Your task to perform on an android device: refresh tabs in the chrome app Image 0: 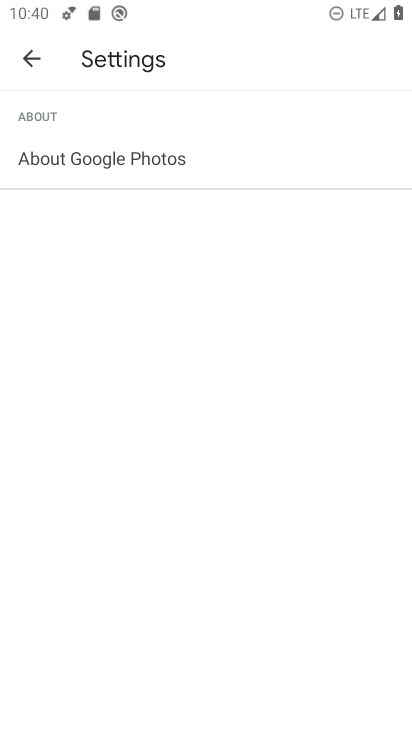
Step 0: press home button
Your task to perform on an android device: refresh tabs in the chrome app Image 1: 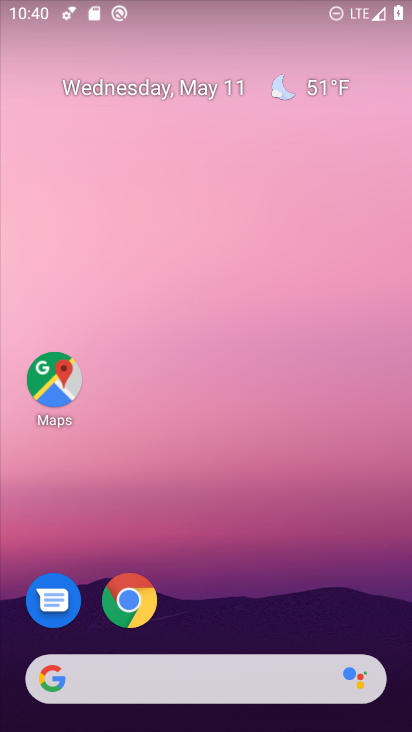
Step 1: click (119, 600)
Your task to perform on an android device: refresh tabs in the chrome app Image 2: 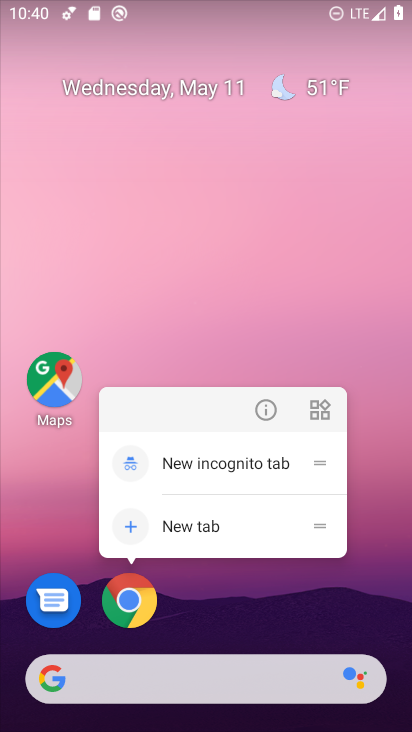
Step 2: click (138, 603)
Your task to perform on an android device: refresh tabs in the chrome app Image 3: 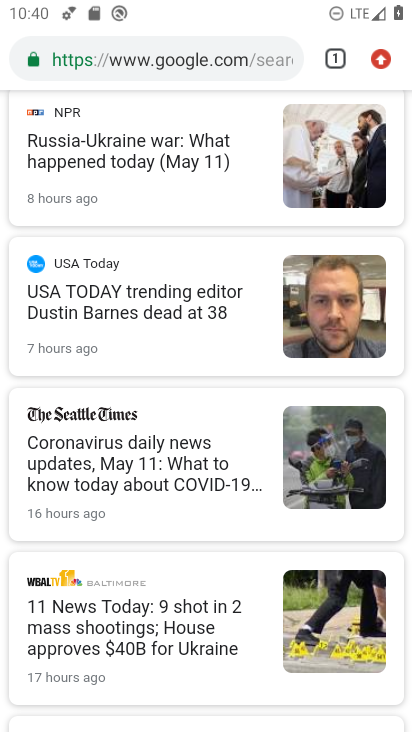
Step 3: click (380, 60)
Your task to perform on an android device: refresh tabs in the chrome app Image 4: 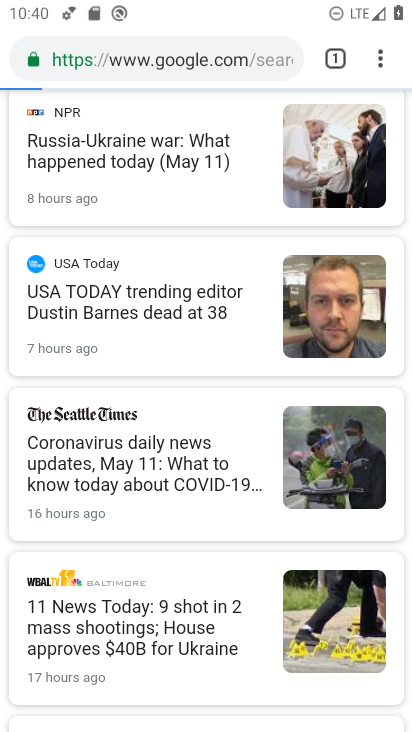
Step 4: click (380, 60)
Your task to perform on an android device: refresh tabs in the chrome app Image 5: 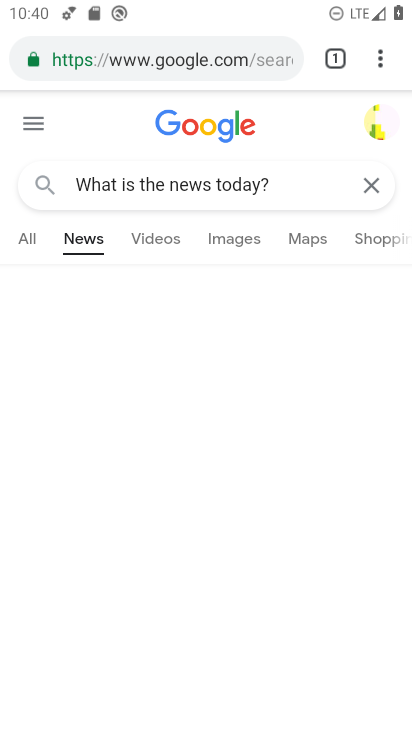
Step 5: task complete